Your task to perform on an android device: change keyboard looks Image 0: 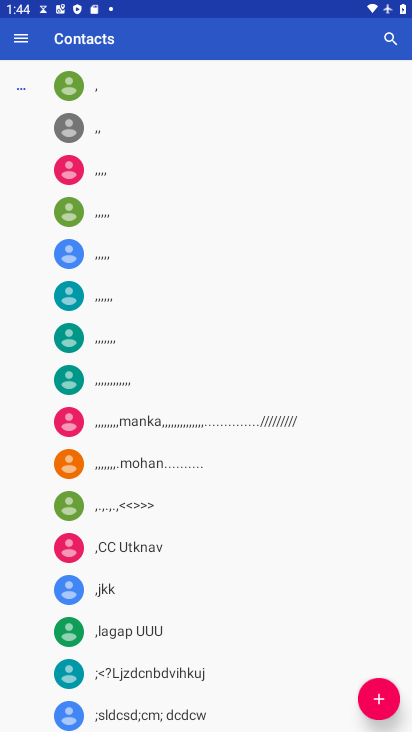
Step 0: press home button
Your task to perform on an android device: change keyboard looks Image 1: 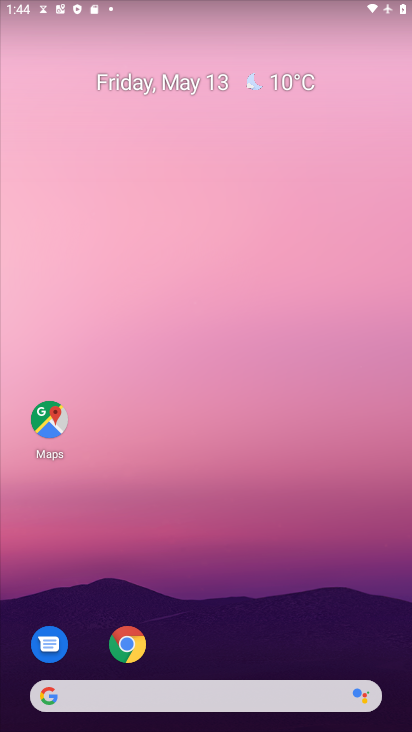
Step 1: drag from (216, 730) to (216, 142)
Your task to perform on an android device: change keyboard looks Image 2: 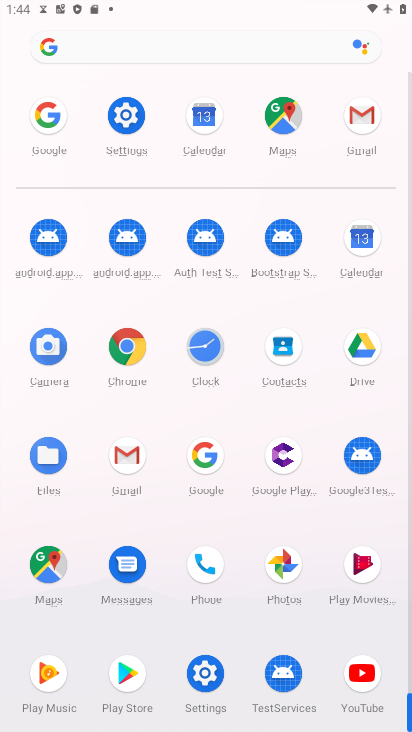
Step 2: click (118, 114)
Your task to perform on an android device: change keyboard looks Image 3: 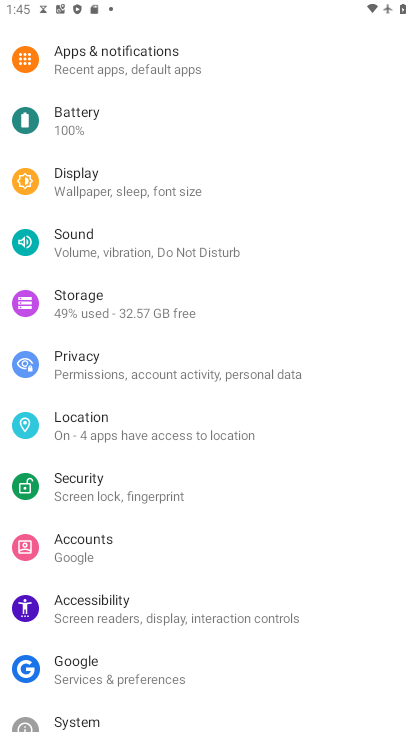
Step 3: drag from (221, 689) to (206, 249)
Your task to perform on an android device: change keyboard looks Image 4: 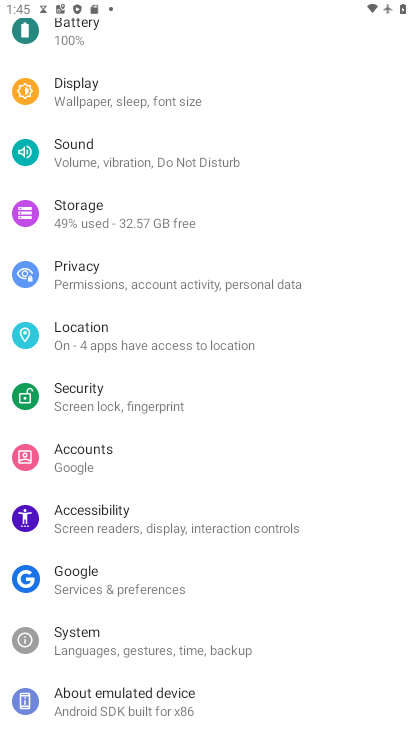
Step 4: click (94, 635)
Your task to perform on an android device: change keyboard looks Image 5: 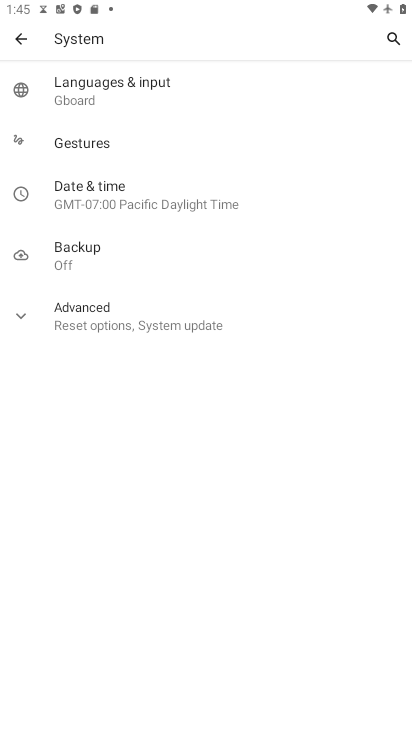
Step 5: click (89, 88)
Your task to perform on an android device: change keyboard looks Image 6: 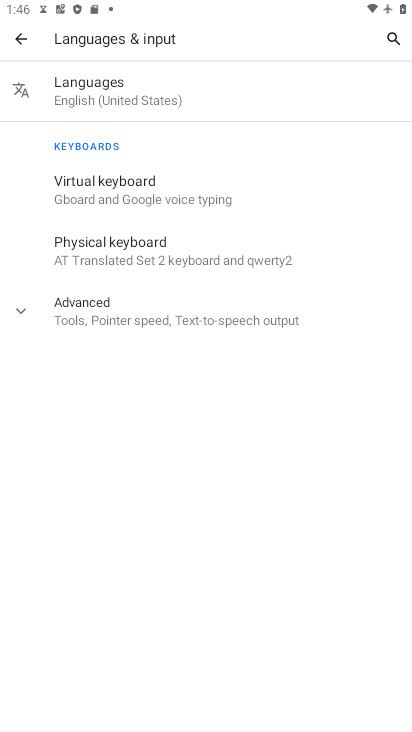
Step 6: click (101, 182)
Your task to perform on an android device: change keyboard looks Image 7: 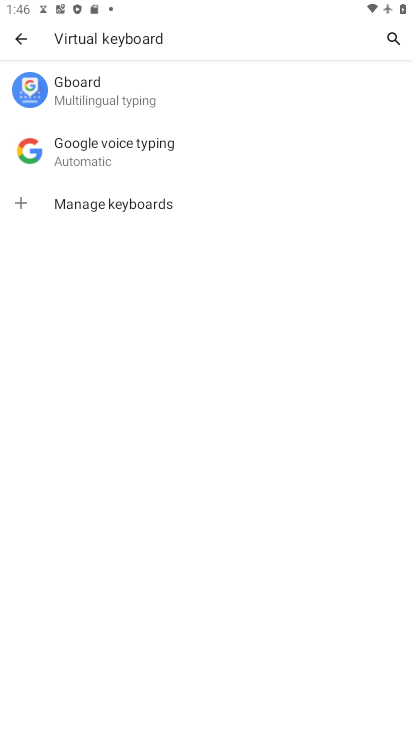
Step 7: click (103, 87)
Your task to perform on an android device: change keyboard looks Image 8: 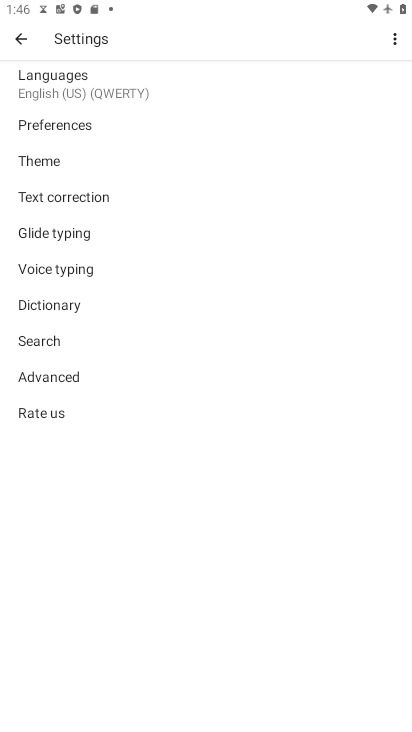
Step 8: click (36, 156)
Your task to perform on an android device: change keyboard looks Image 9: 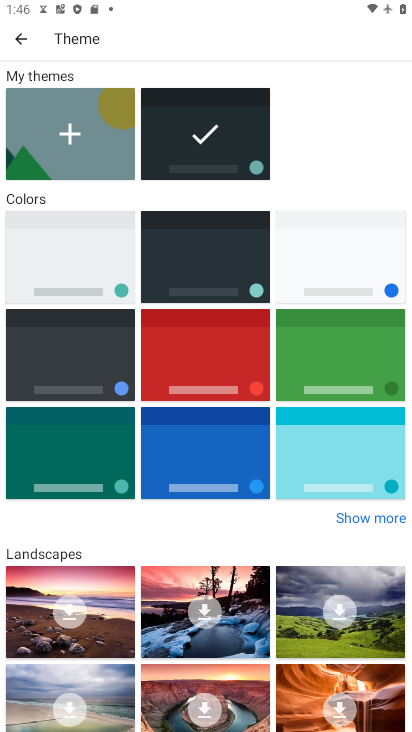
Step 9: click (214, 255)
Your task to perform on an android device: change keyboard looks Image 10: 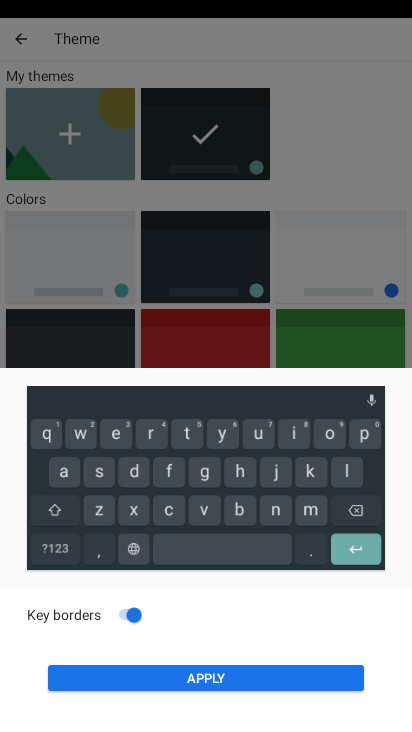
Step 10: click (202, 671)
Your task to perform on an android device: change keyboard looks Image 11: 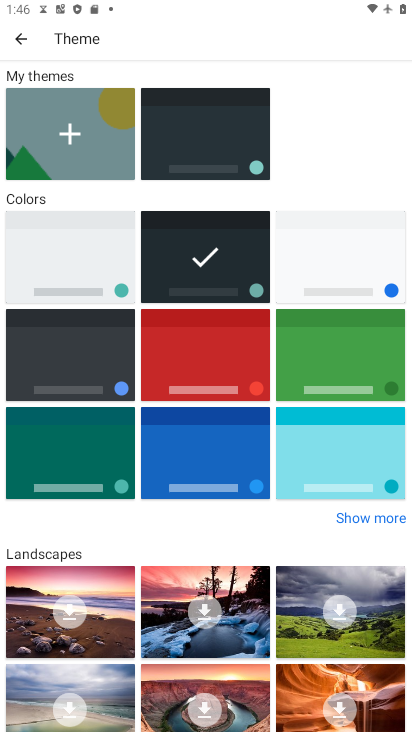
Step 11: task complete